Your task to perform on an android device: Open location settings Image 0: 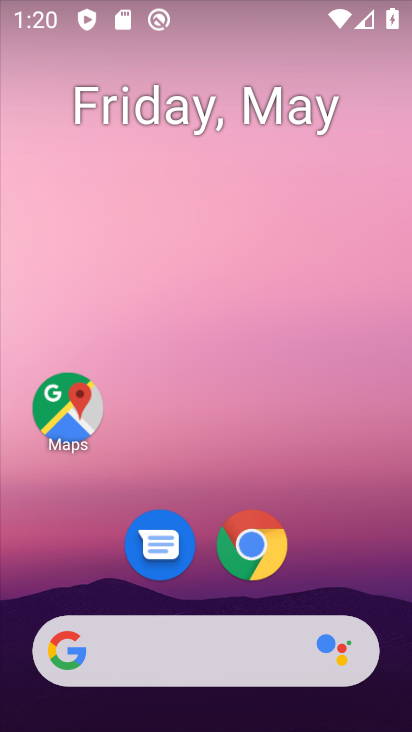
Step 0: drag from (409, 549) to (340, 97)
Your task to perform on an android device: Open location settings Image 1: 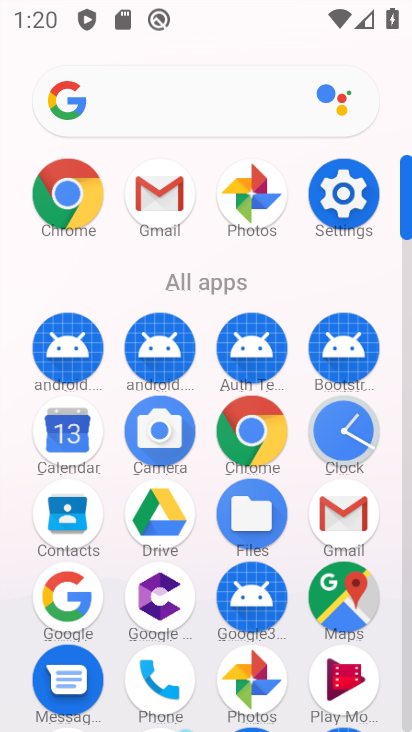
Step 1: click (368, 230)
Your task to perform on an android device: Open location settings Image 2: 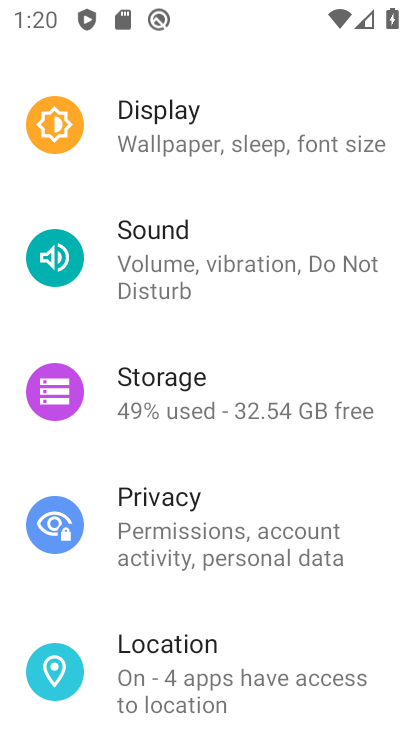
Step 2: click (246, 670)
Your task to perform on an android device: Open location settings Image 3: 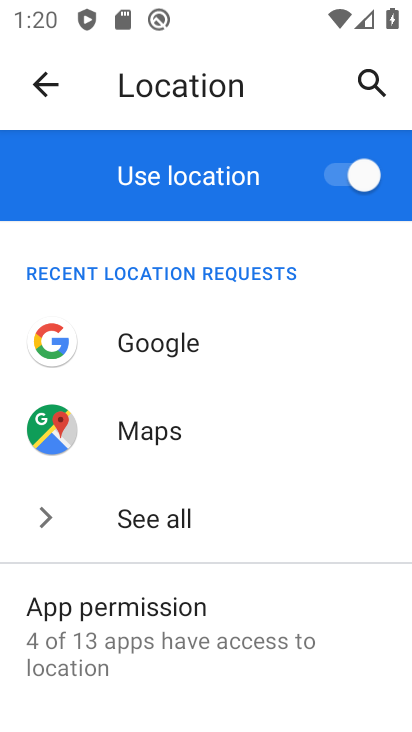
Step 3: task complete